Your task to perform on an android device: check android version Image 0: 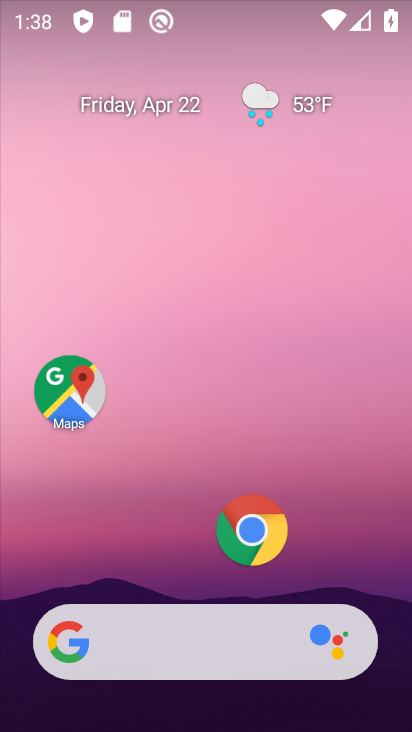
Step 0: drag from (217, 599) to (257, 177)
Your task to perform on an android device: check android version Image 1: 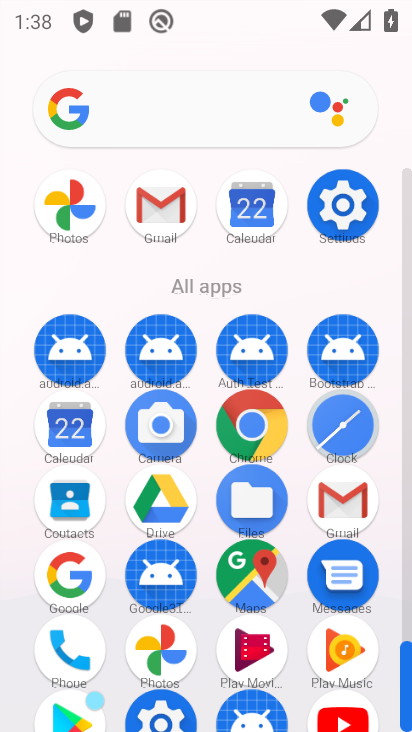
Step 1: click (326, 205)
Your task to perform on an android device: check android version Image 2: 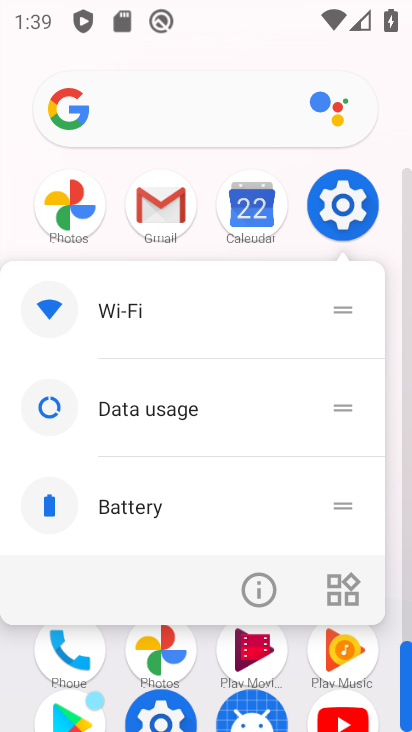
Step 2: click (348, 203)
Your task to perform on an android device: check android version Image 3: 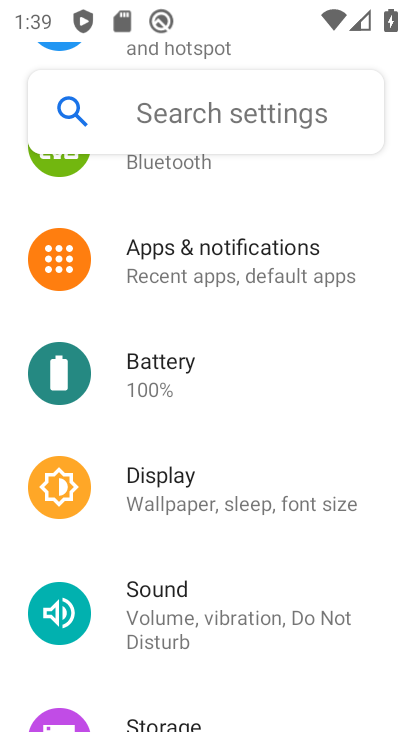
Step 3: drag from (213, 536) to (266, 1)
Your task to perform on an android device: check android version Image 4: 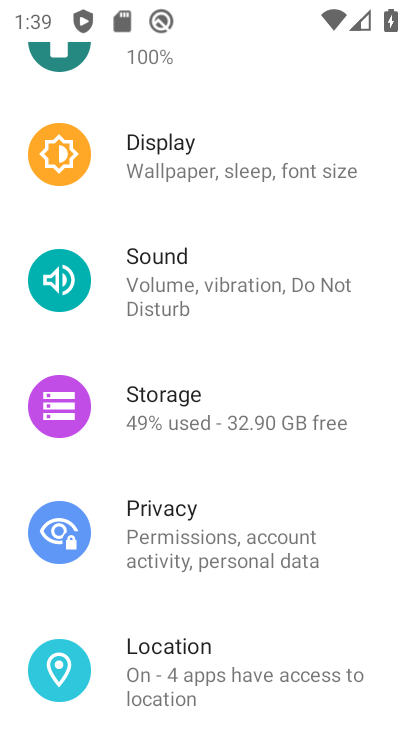
Step 4: drag from (217, 583) to (303, 272)
Your task to perform on an android device: check android version Image 5: 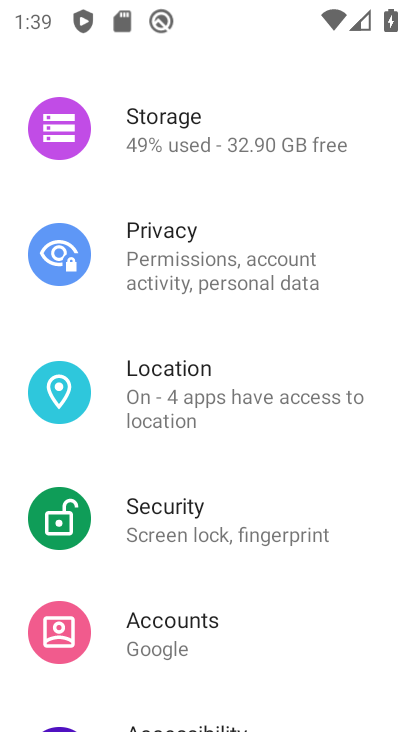
Step 5: drag from (261, 586) to (242, 377)
Your task to perform on an android device: check android version Image 6: 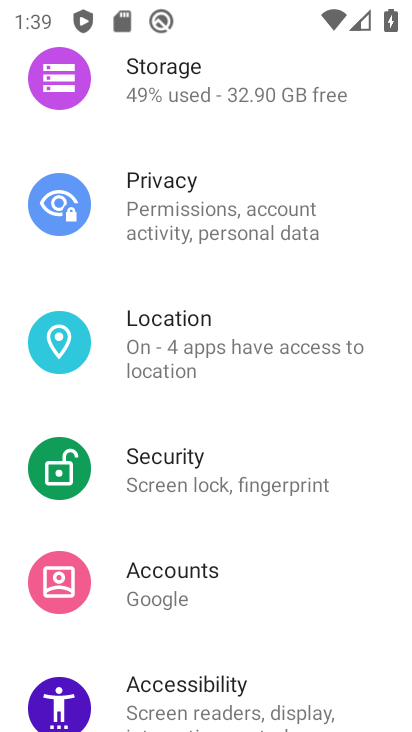
Step 6: drag from (193, 626) to (193, 13)
Your task to perform on an android device: check android version Image 7: 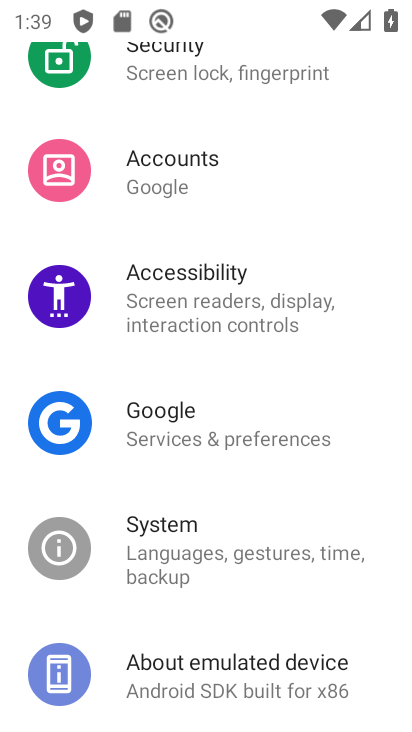
Step 7: click (165, 659)
Your task to perform on an android device: check android version Image 8: 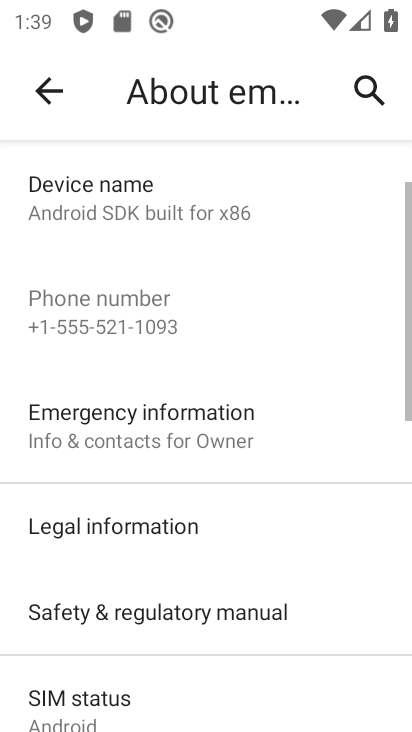
Step 8: drag from (247, 614) to (331, 244)
Your task to perform on an android device: check android version Image 9: 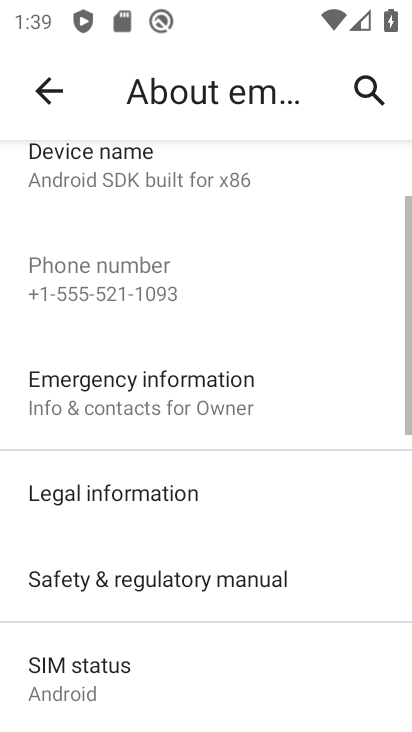
Step 9: drag from (219, 627) to (202, 335)
Your task to perform on an android device: check android version Image 10: 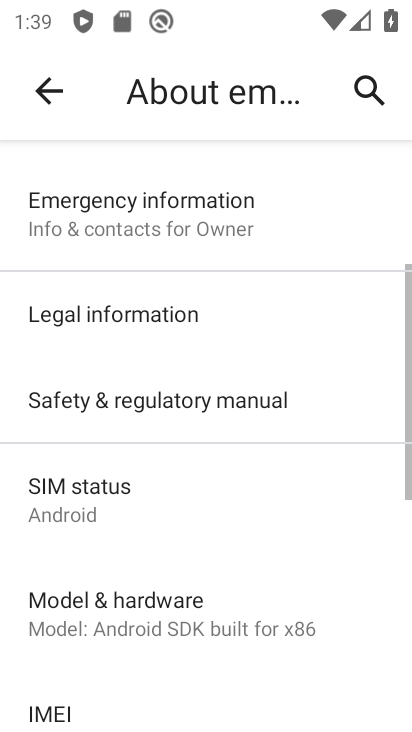
Step 10: drag from (158, 611) to (189, 261)
Your task to perform on an android device: check android version Image 11: 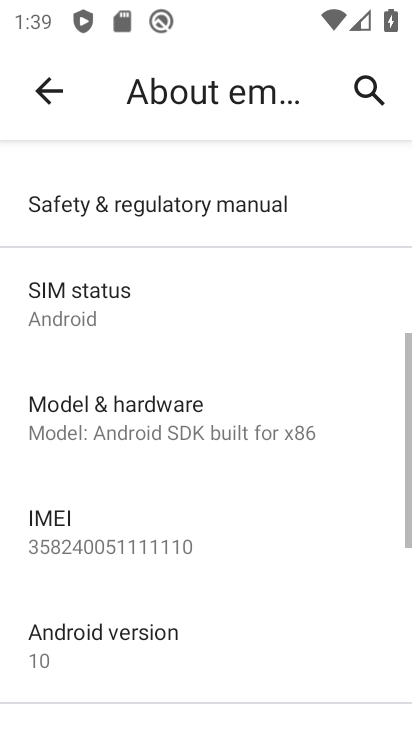
Step 11: click (118, 656)
Your task to perform on an android device: check android version Image 12: 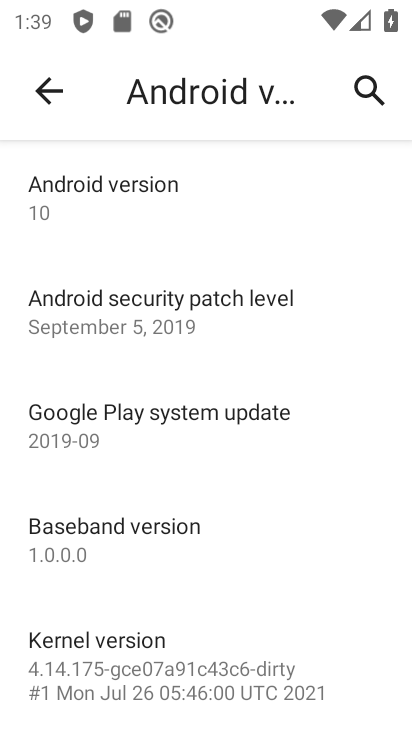
Step 12: click (245, 217)
Your task to perform on an android device: check android version Image 13: 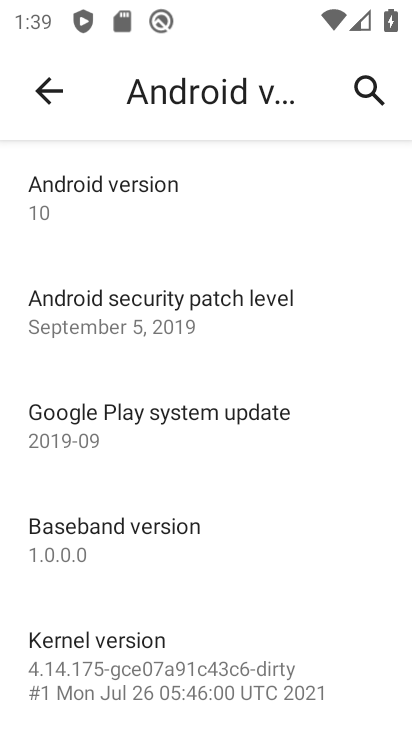
Step 13: task complete